Your task to perform on an android device: Open Google Maps and go to "Timeline" Image 0: 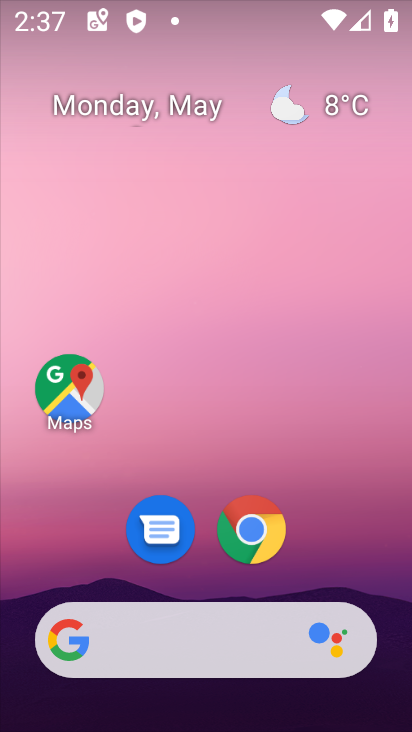
Step 0: click (65, 392)
Your task to perform on an android device: Open Google Maps and go to "Timeline" Image 1: 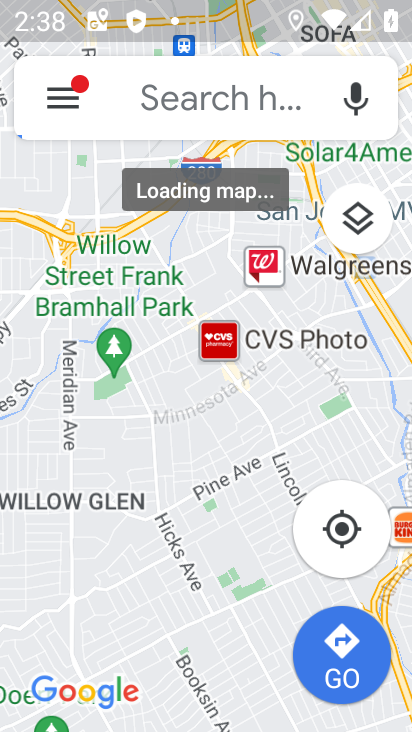
Step 1: click (57, 120)
Your task to perform on an android device: Open Google Maps and go to "Timeline" Image 2: 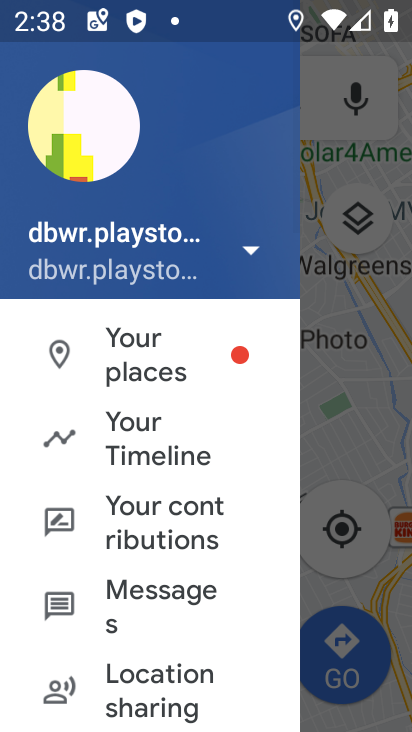
Step 2: click (165, 461)
Your task to perform on an android device: Open Google Maps and go to "Timeline" Image 3: 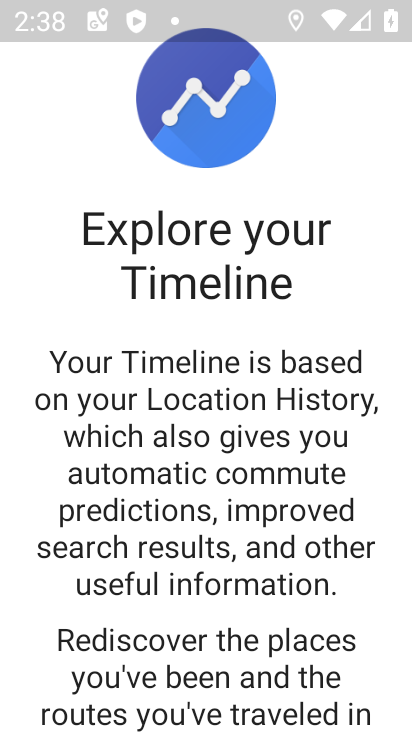
Step 3: drag from (218, 564) to (274, 368)
Your task to perform on an android device: Open Google Maps and go to "Timeline" Image 4: 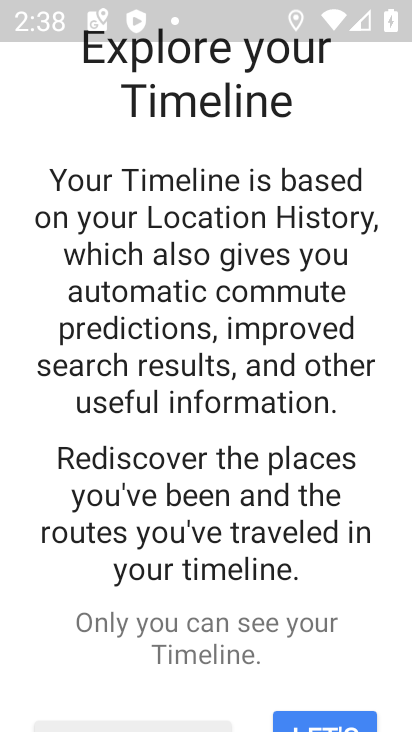
Step 4: drag from (300, 645) to (353, 499)
Your task to perform on an android device: Open Google Maps and go to "Timeline" Image 5: 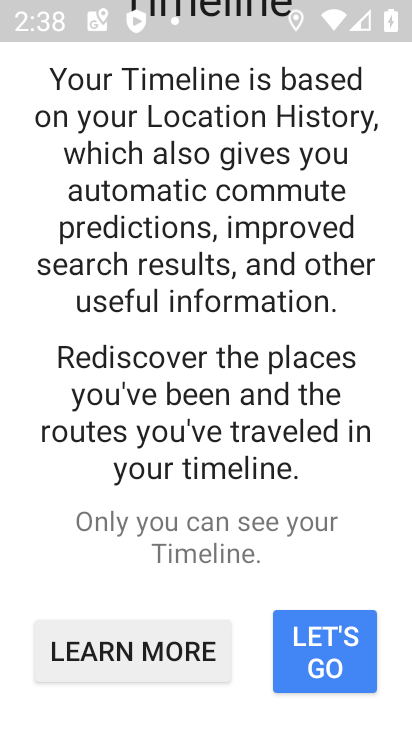
Step 5: click (341, 655)
Your task to perform on an android device: Open Google Maps and go to "Timeline" Image 6: 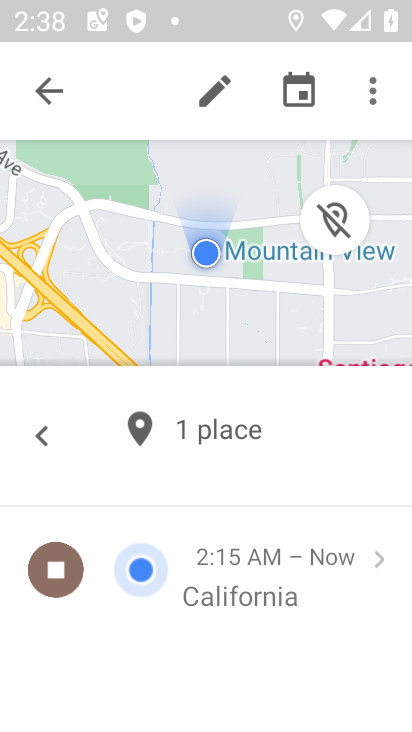
Step 6: task complete